Your task to perform on an android device: open app "Venmo" Image 0: 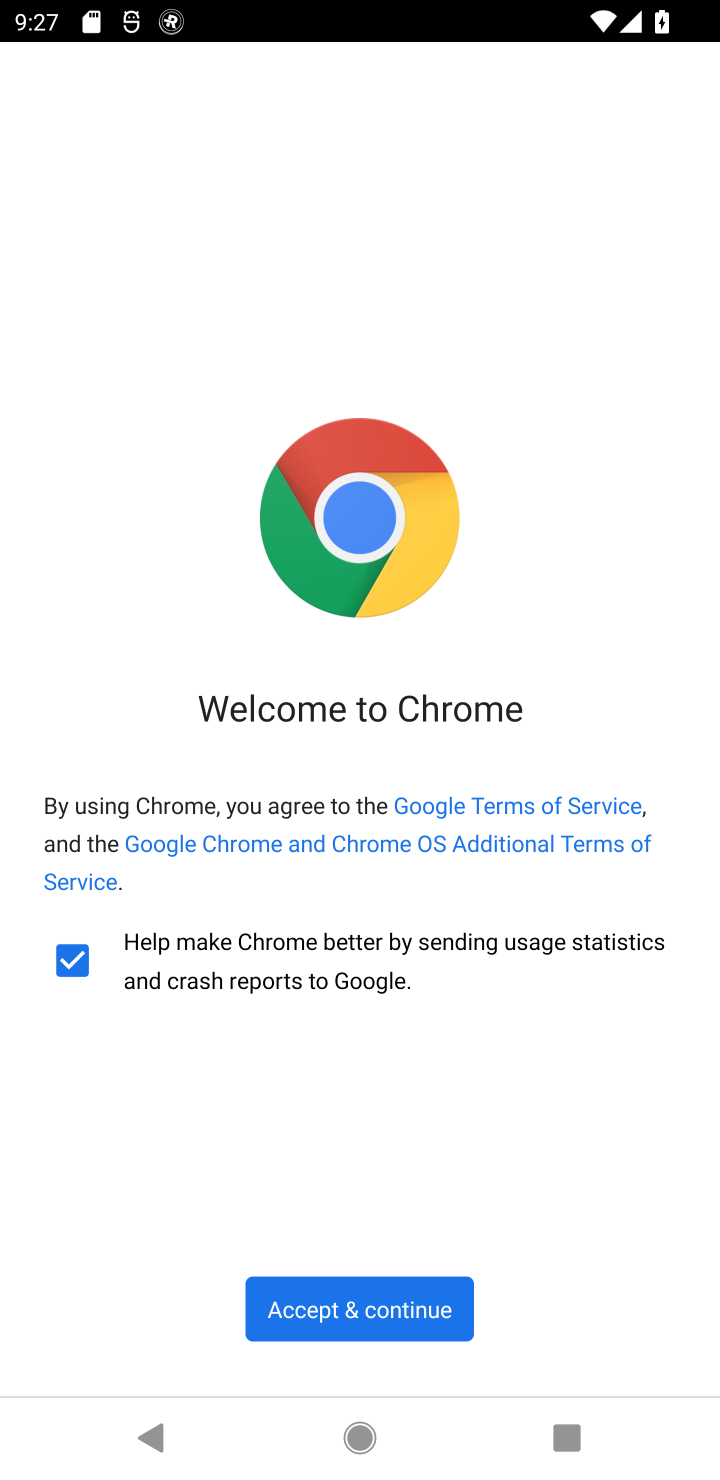
Step 0: press home button
Your task to perform on an android device: open app "Venmo" Image 1: 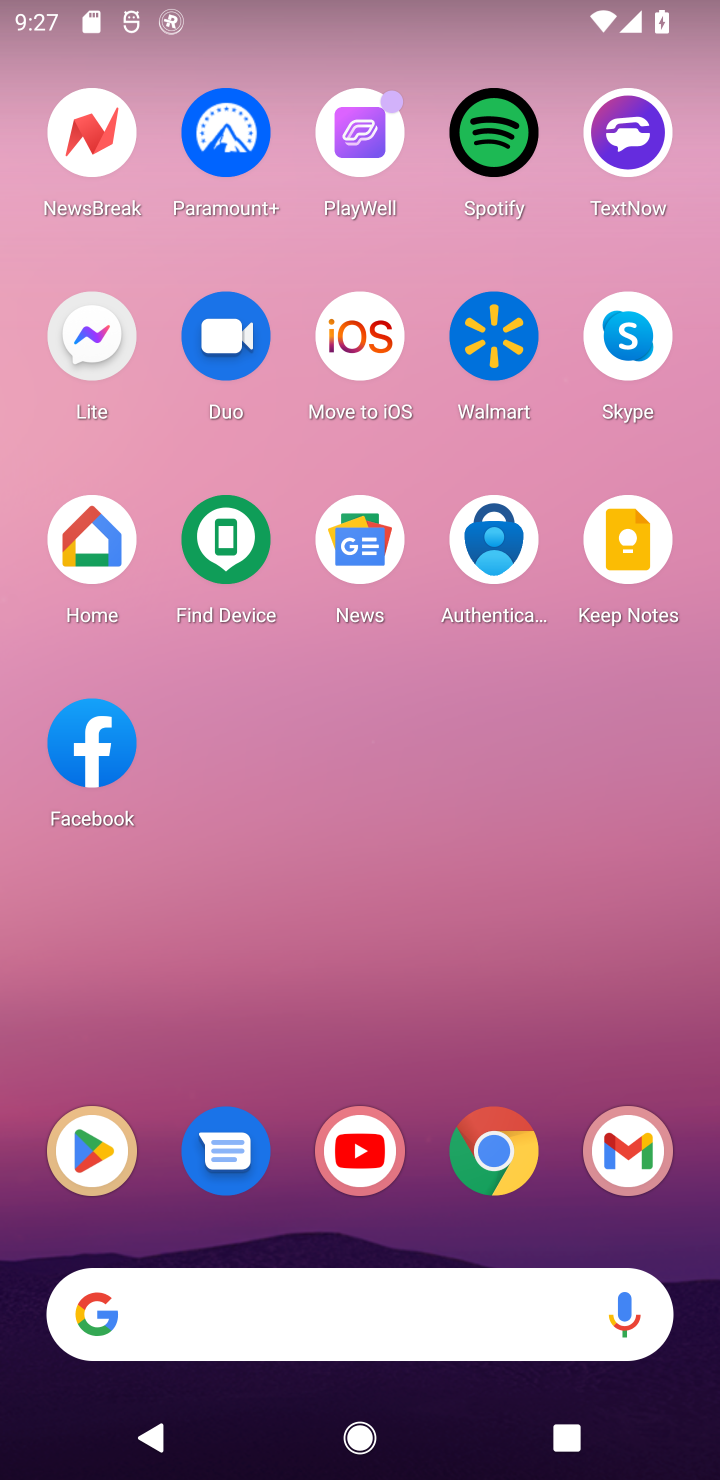
Step 1: click (73, 1163)
Your task to perform on an android device: open app "Venmo" Image 2: 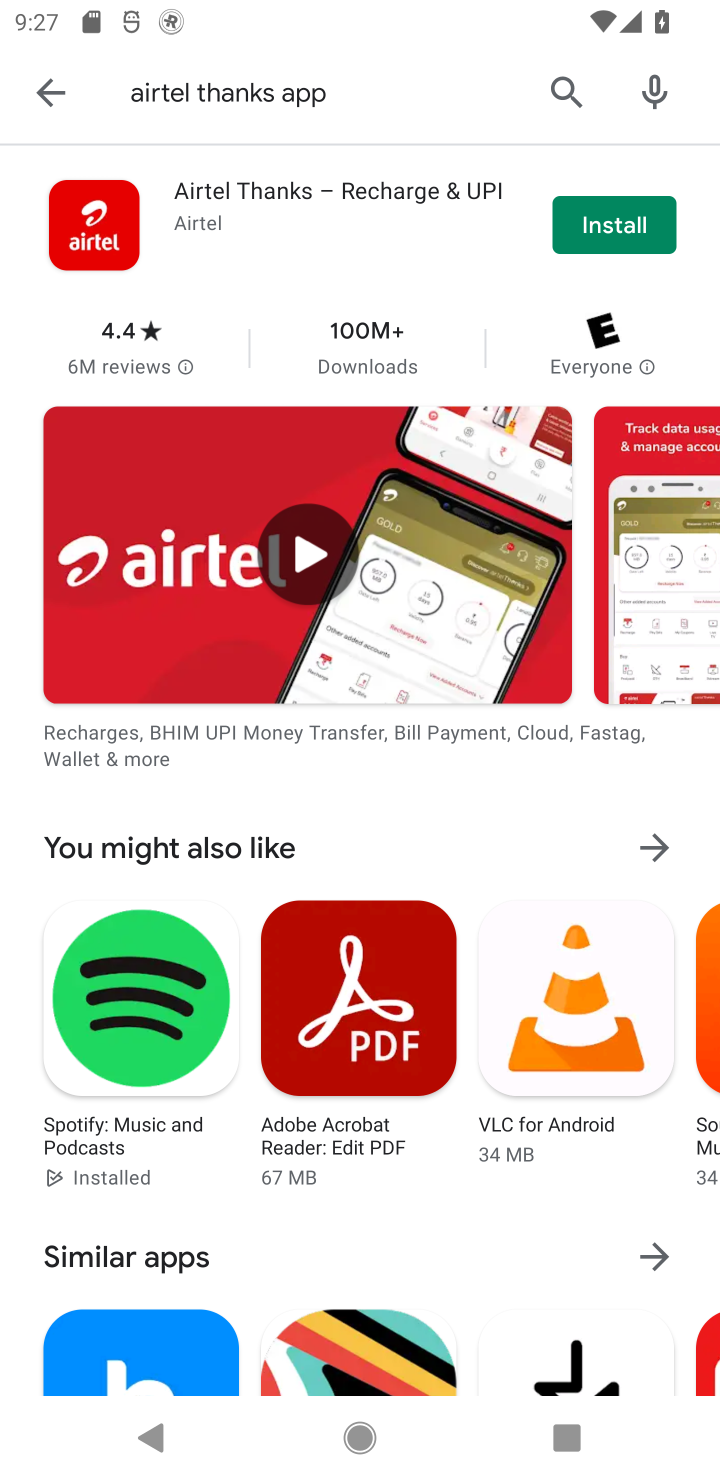
Step 2: click (539, 72)
Your task to perform on an android device: open app "Venmo" Image 3: 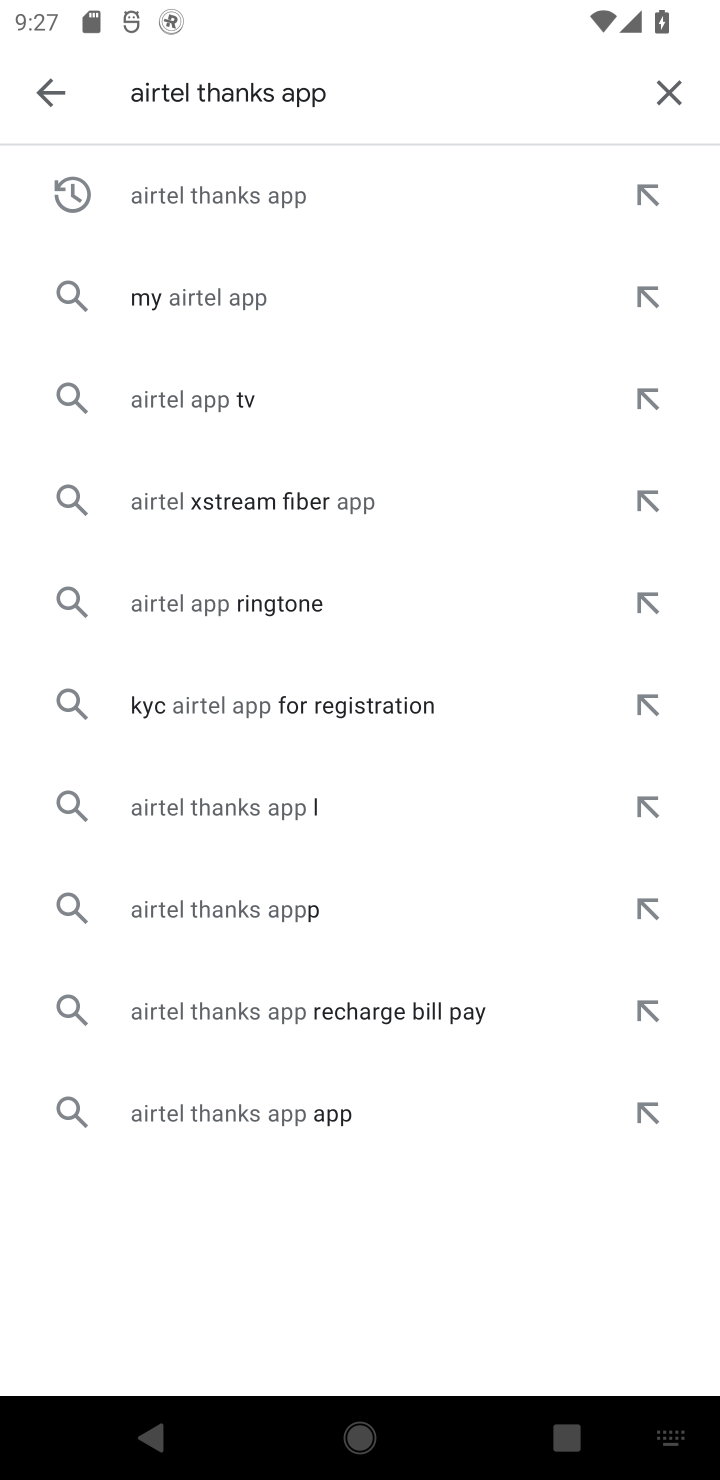
Step 3: click (645, 64)
Your task to perform on an android device: open app "Venmo" Image 4: 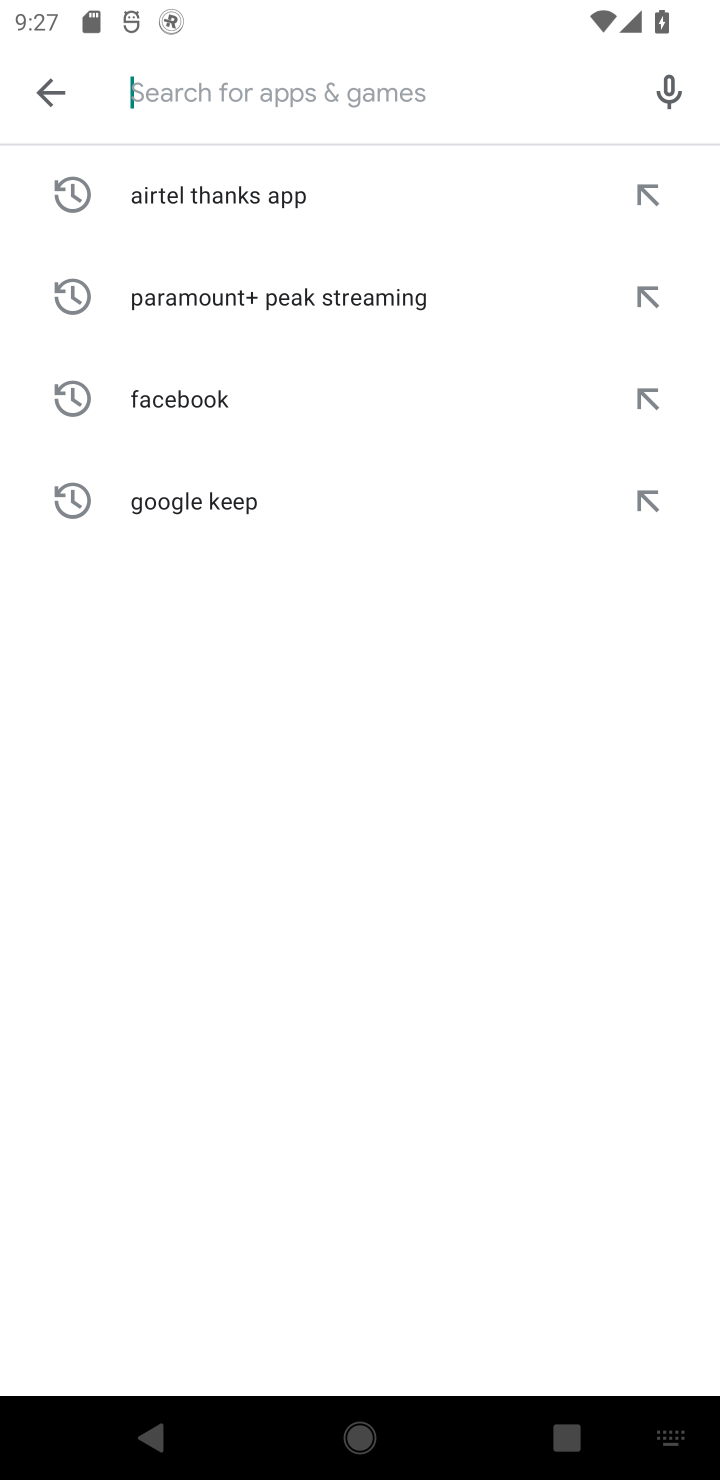
Step 4: type "Venmo"
Your task to perform on an android device: open app "Venmo" Image 5: 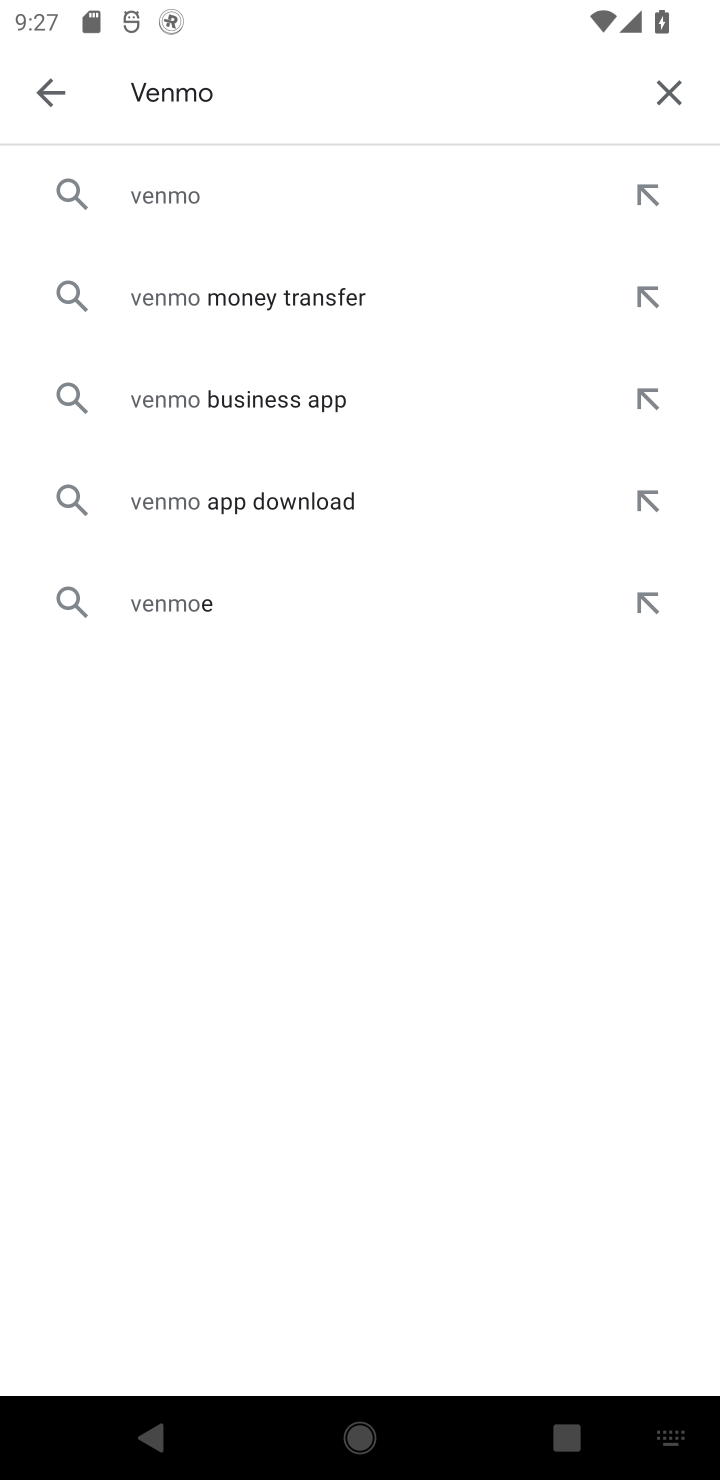
Step 5: click (227, 199)
Your task to perform on an android device: open app "Venmo" Image 6: 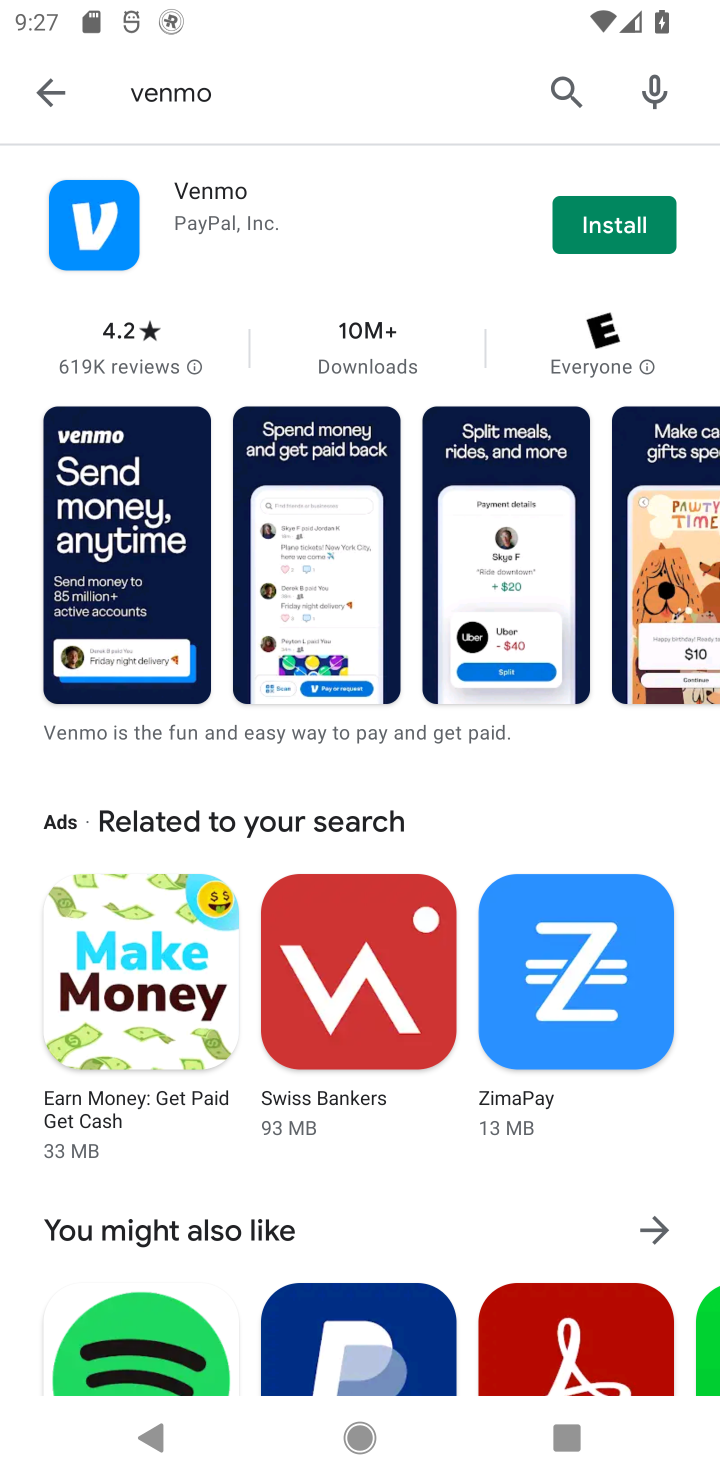
Step 6: task complete